Your task to perform on an android device: visit the assistant section in the google photos Image 0: 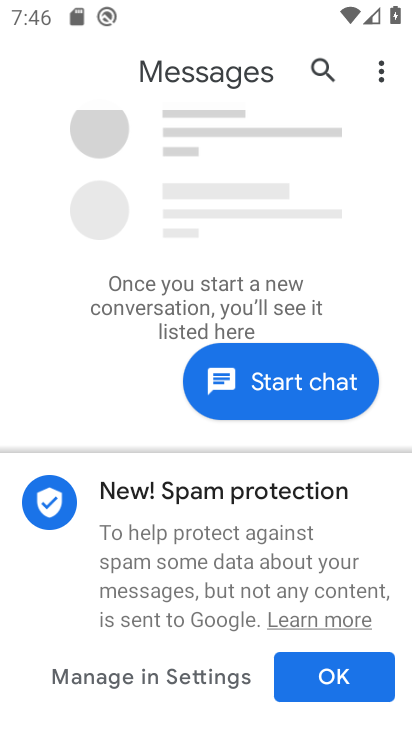
Step 0: press home button
Your task to perform on an android device: visit the assistant section in the google photos Image 1: 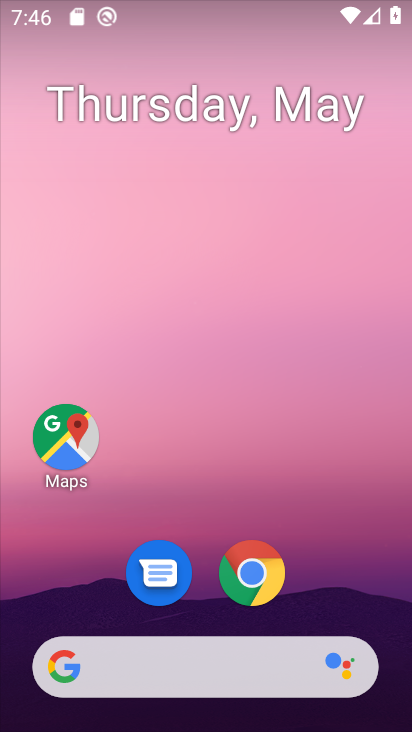
Step 1: drag from (216, 613) to (228, 27)
Your task to perform on an android device: visit the assistant section in the google photos Image 2: 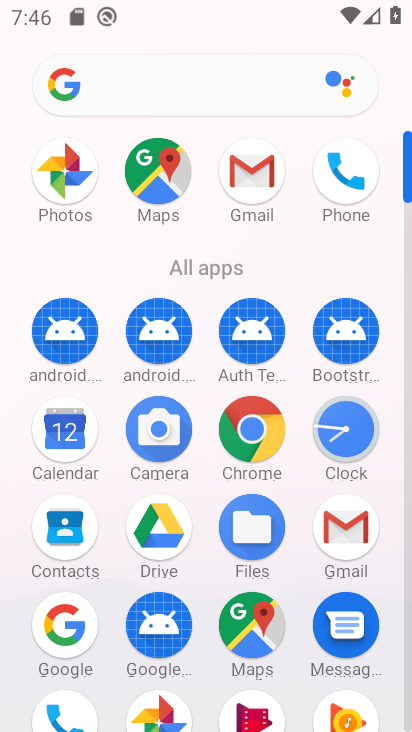
Step 2: click (165, 693)
Your task to perform on an android device: visit the assistant section in the google photos Image 3: 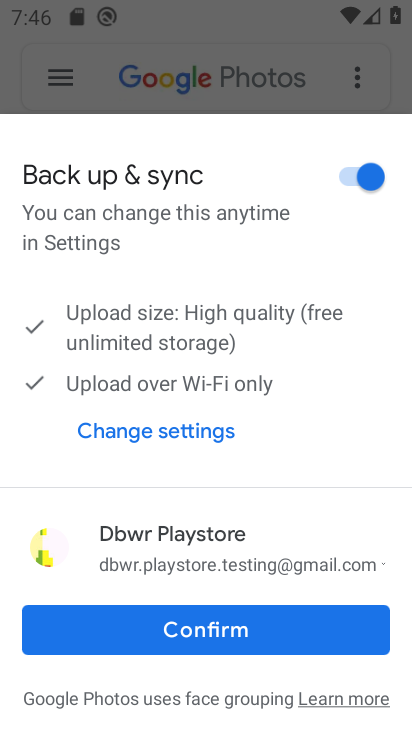
Step 3: click (252, 680)
Your task to perform on an android device: visit the assistant section in the google photos Image 4: 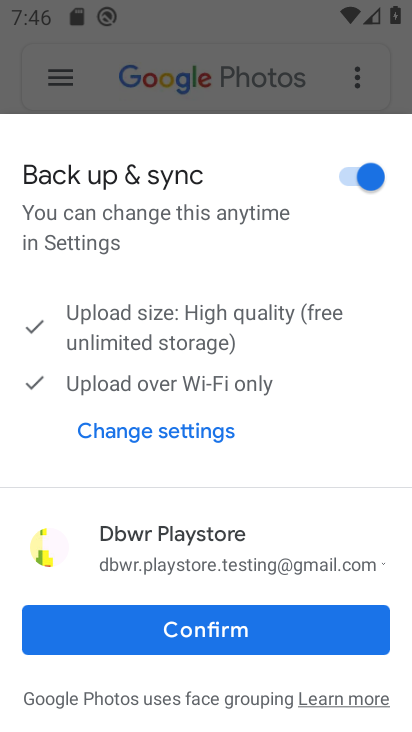
Step 4: click (225, 630)
Your task to perform on an android device: visit the assistant section in the google photos Image 5: 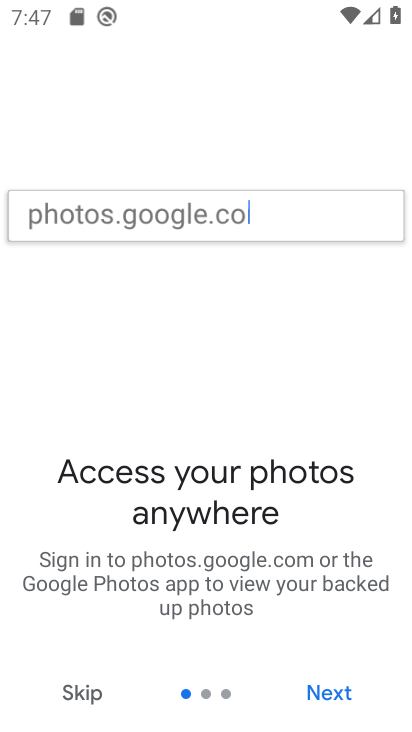
Step 5: click (69, 690)
Your task to perform on an android device: visit the assistant section in the google photos Image 6: 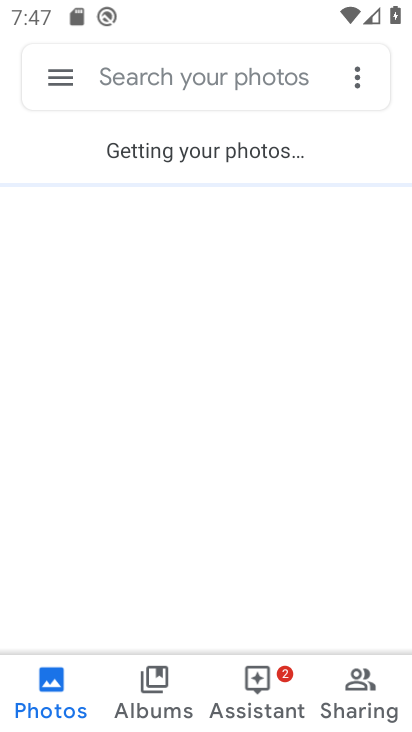
Step 6: click (247, 697)
Your task to perform on an android device: visit the assistant section in the google photos Image 7: 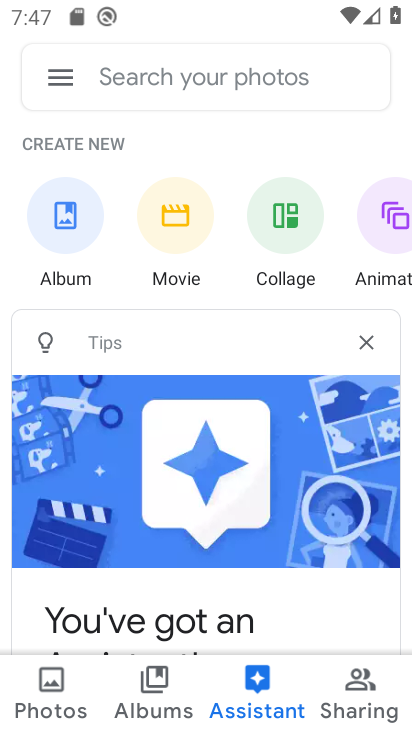
Step 7: task complete